Your task to perform on an android device: find which apps use the phone's location Image 0: 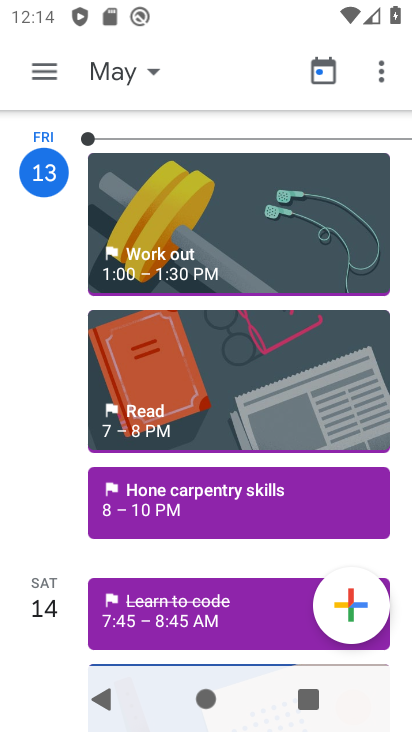
Step 0: press home button
Your task to perform on an android device: find which apps use the phone's location Image 1: 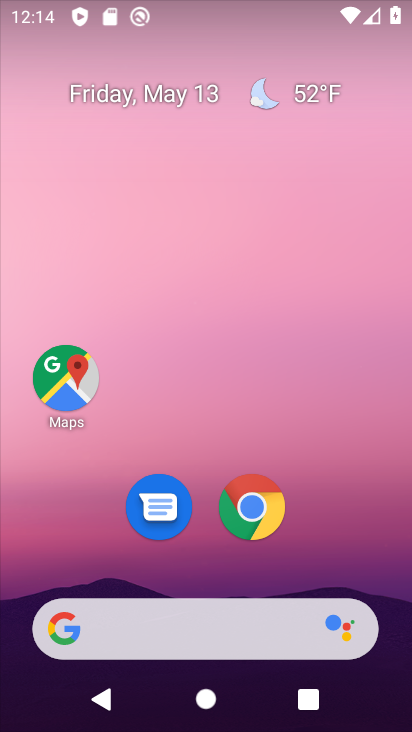
Step 1: drag from (206, 588) to (248, 259)
Your task to perform on an android device: find which apps use the phone's location Image 2: 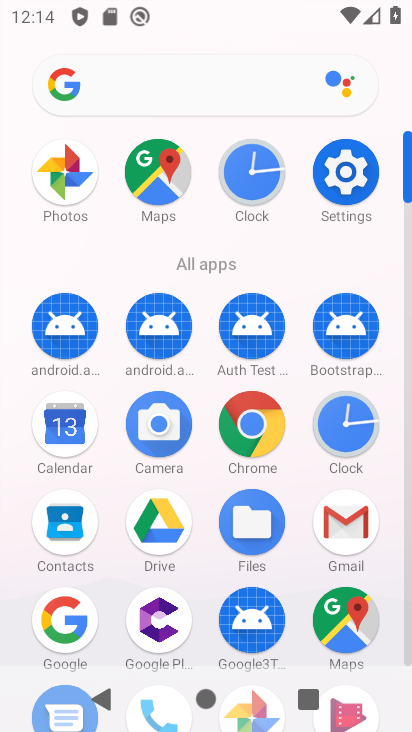
Step 2: click (343, 176)
Your task to perform on an android device: find which apps use the phone's location Image 3: 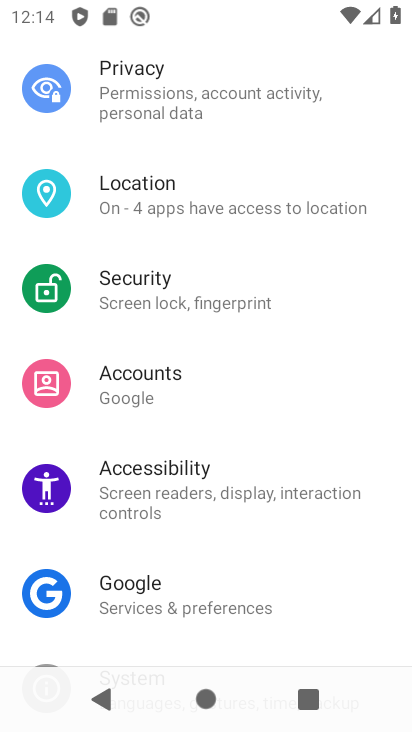
Step 3: click (151, 195)
Your task to perform on an android device: find which apps use the phone's location Image 4: 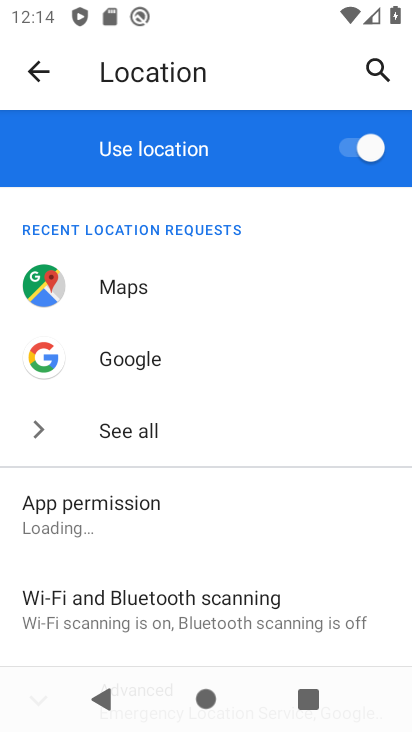
Step 4: click (110, 506)
Your task to perform on an android device: find which apps use the phone's location Image 5: 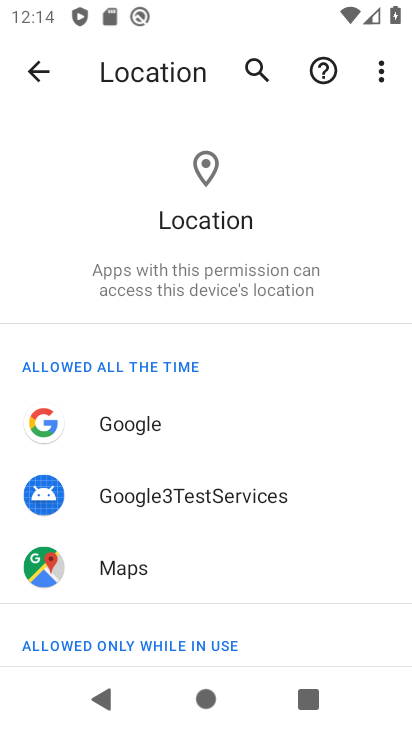
Step 5: task complete